Your task to perform on an android device: turn off data saver in the chrome app Image 0: 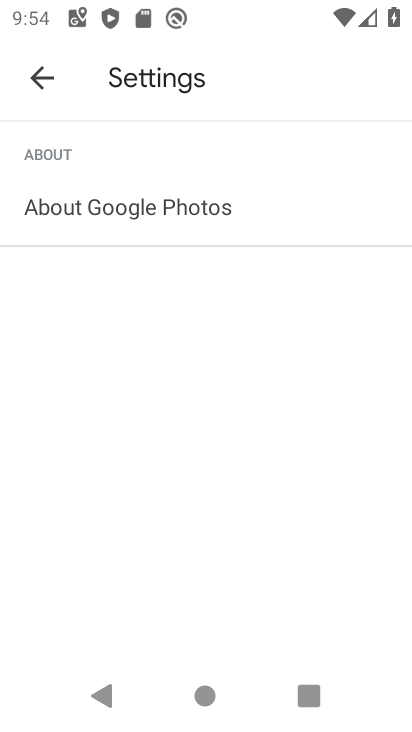
Step 0: press home button
Your task to perform on an android device: turn off data saver in the chrome app Image 1: 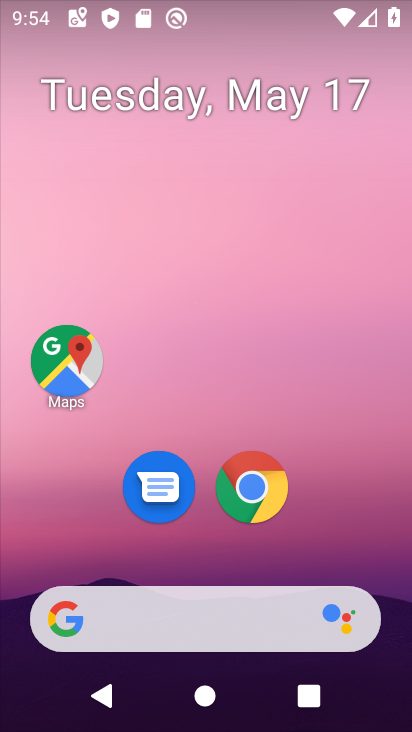
Step 1: drag from (211, 653) to (148, 161)
Your task to perform on an android device: turn off data saver in the chrome app Image 2: 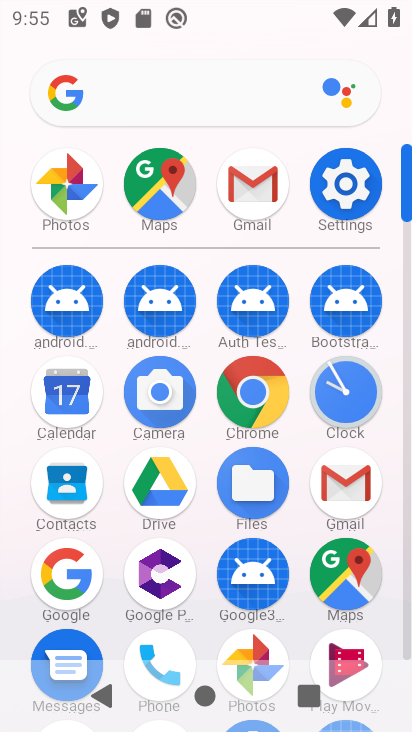
Step 2: click (244, 395)
Your task to perform on an android device: turn off data saver in the chrome app Image 3: 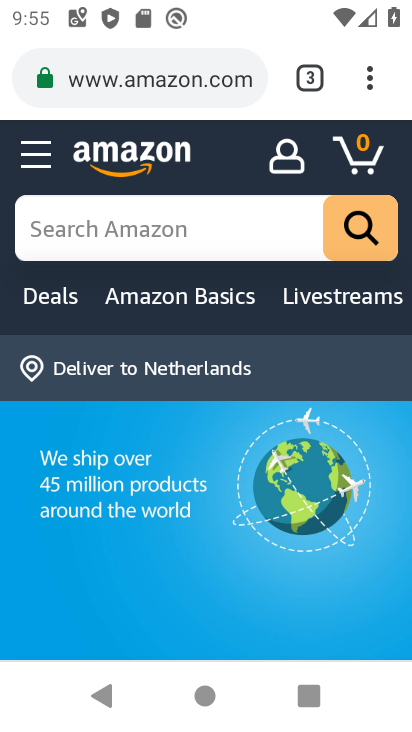
Step 3: click (354, 104)
Your task to perform on an android device: turn off data saver in the chrome app Image 4: 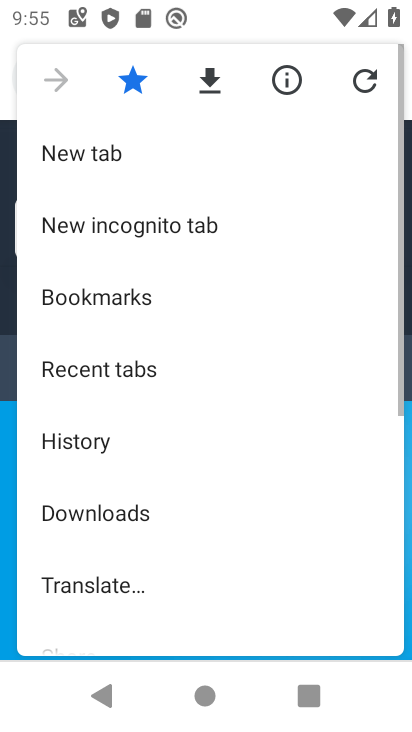
Step 4: drag from (229, 621) to (187, 245)
Your task to perform on an android device: turn off data saver in the chrome app Image 5: 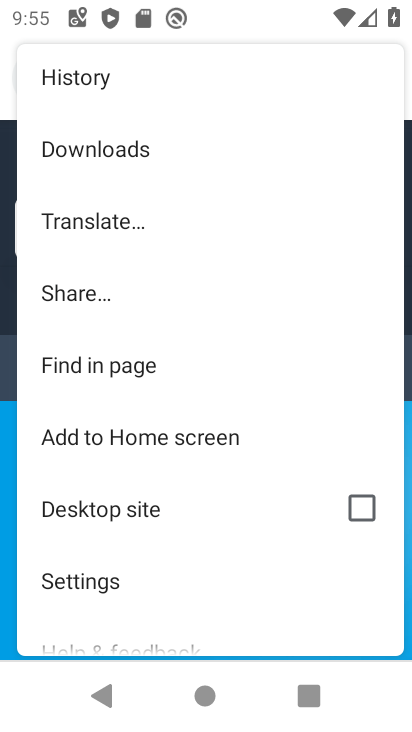
Step 5: click (136, 574)
Your task to perform on an android device: turn off data saver in the chrome app Image 6: 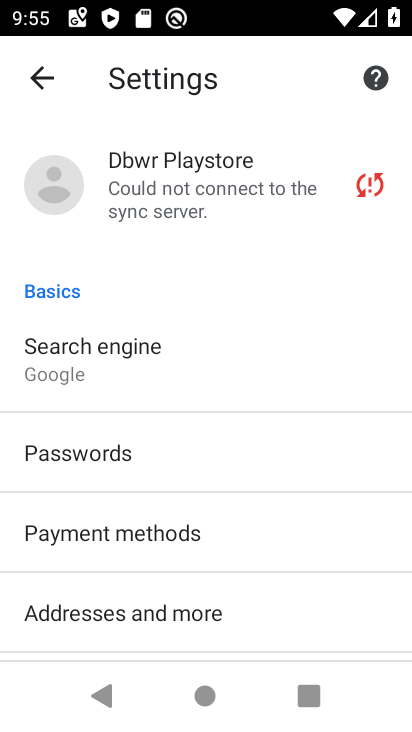
Step 6: drag from (183, 626) to (128, 262)
Your task to perform on an android device: turn off data saver in the chrome app Image 7: 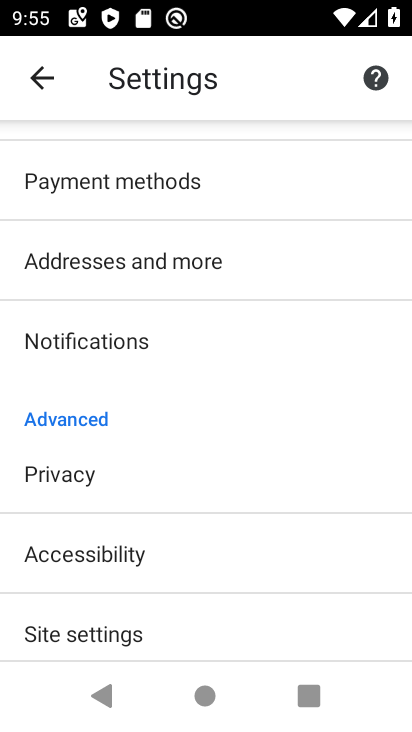
Step 7: drag from (118, 608) to (138, 288)
Your task to perform on an android device: turn off data saver in the chrome app Image 8: 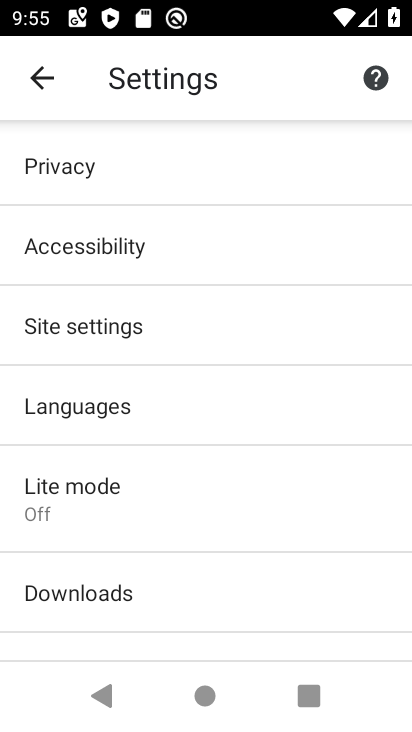
Step 8: click (102, 504)
Your task to perform on an android device: turn off data saver in the chrome app Image 9: 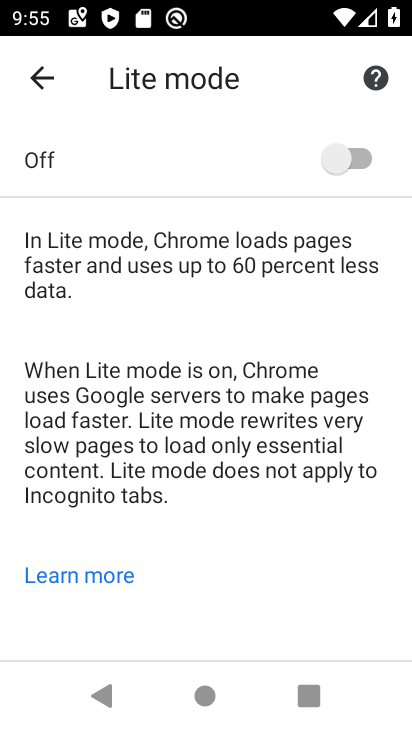
Step 9: click (346, 155)
Your task to perform on an android device: turn off data saver in the chrome app Image 10: 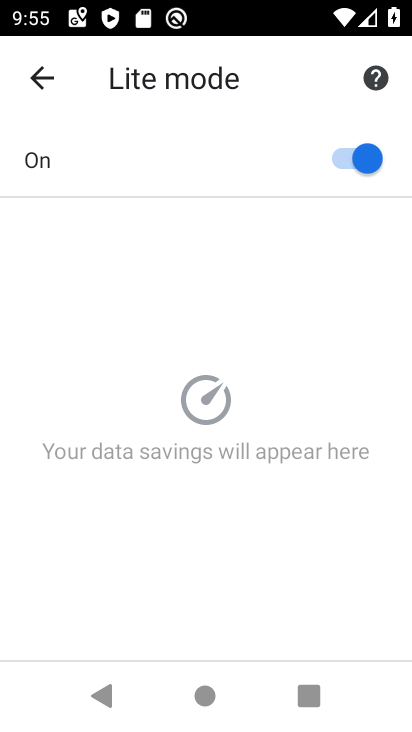
Step 10: click (345, 153)
Your task to perform on an android device: turn off data saver in the chrome app Image 11: 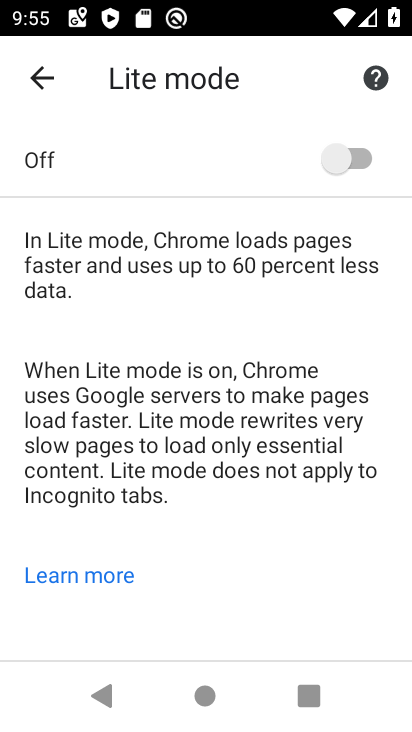
Step 11: task complete